Your task to perform on an android device: turn on notifications settings in the gmail app Image 0: 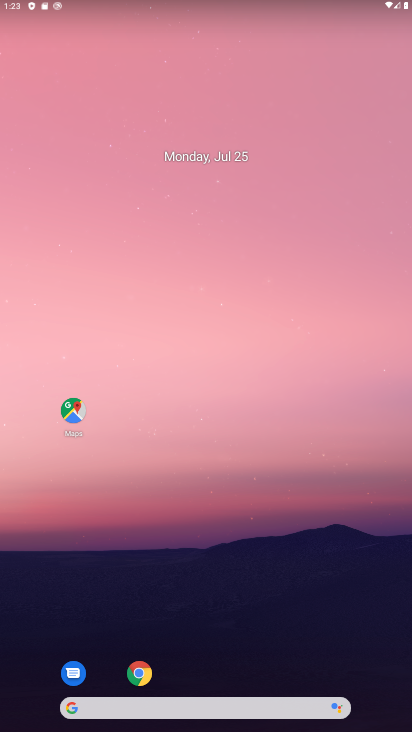
Step 0: drag from (235, 676) to (132, 138)
Your task to perform on an android device: turn on notifications settings in the gmail app Image 1: 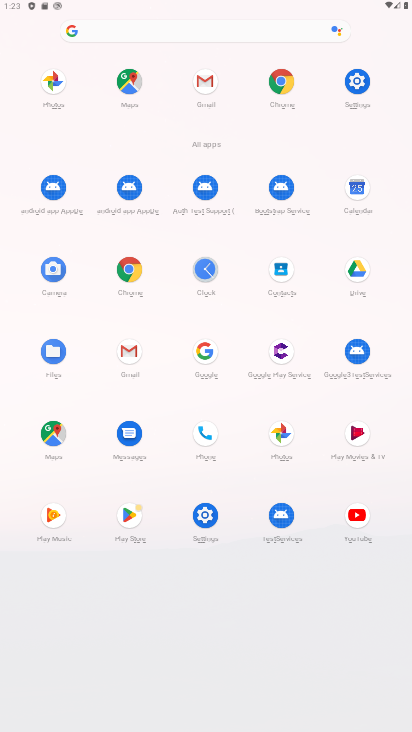
Step 1: click (204, 84)
Your task to perform on an android device: turn on notifications settings in the gmail app Image 2: 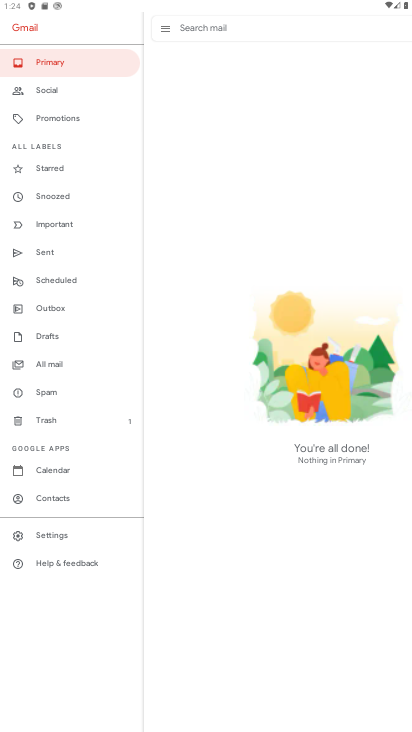
Step 2: click (74, 533)
Your task to perform on an android device: turn on notifications settings in the gmail app Image 3: 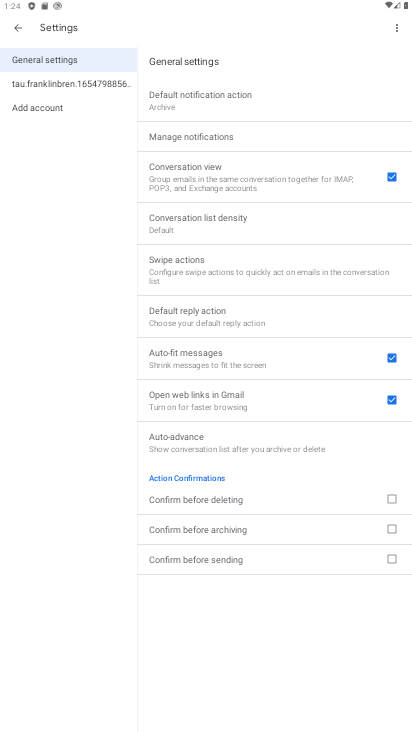
Step 3: click (74, 533)
Your task to perform on an android device: turn on notifications settings in the gmail app Image 4: 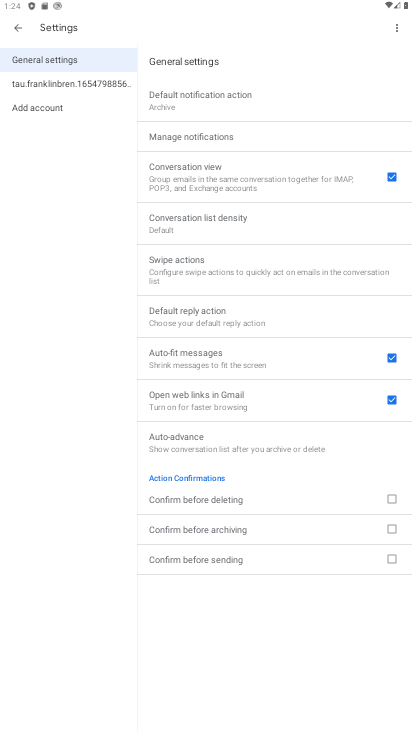
Step 4: click (114, 91)
Your task to perform on an android device: turn on notifications settings in the gmail app Image 5: 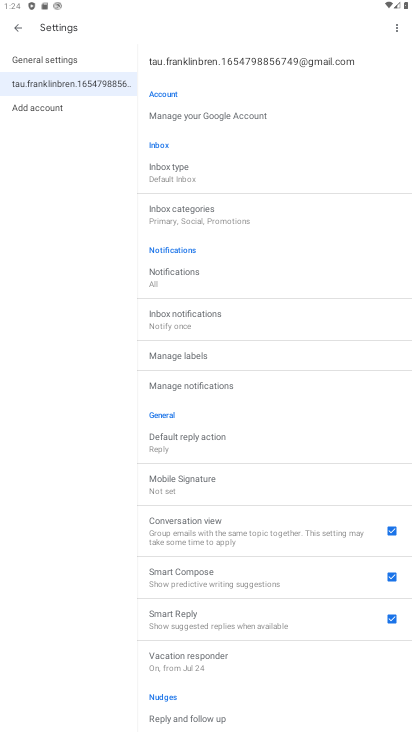
Step 5: click (200, 284)
Your task to perform on an android device: turn on notifications settings in the gmail app Image 6: 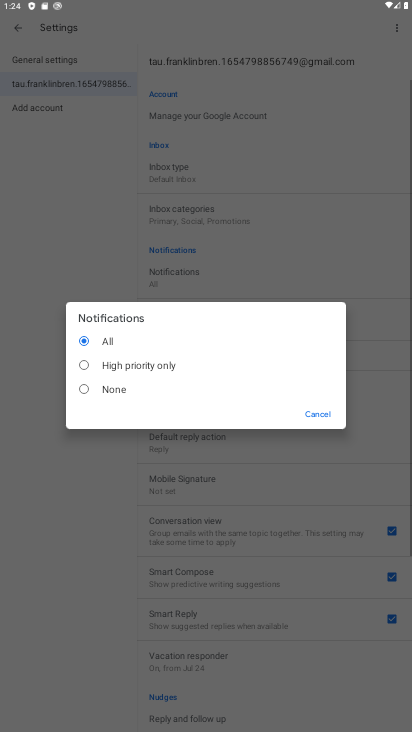
Step 6: task complete